Your task to perform on an android device: Open Google Maps Image 0: 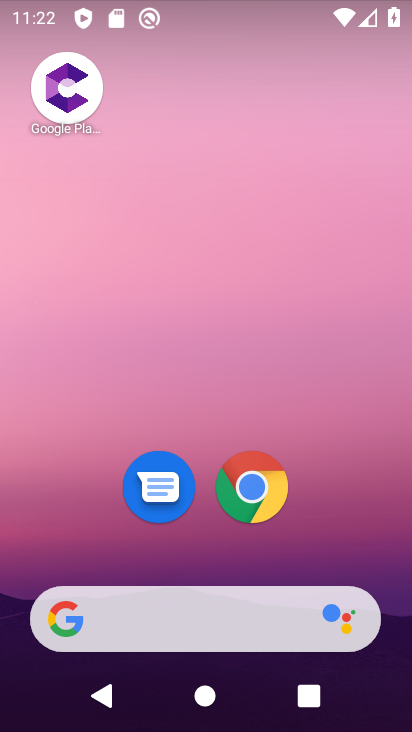
Step 0: drag from (358, 556) to (207, 63)
Your task to perform on an android device: Open Google Maps Image 1: 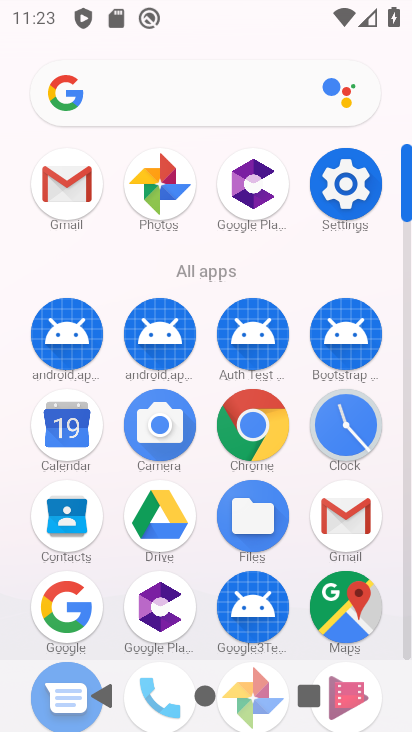
Step 1: click (351, 617)
Your task to perform on an android device: Open Google Maps Image 2: 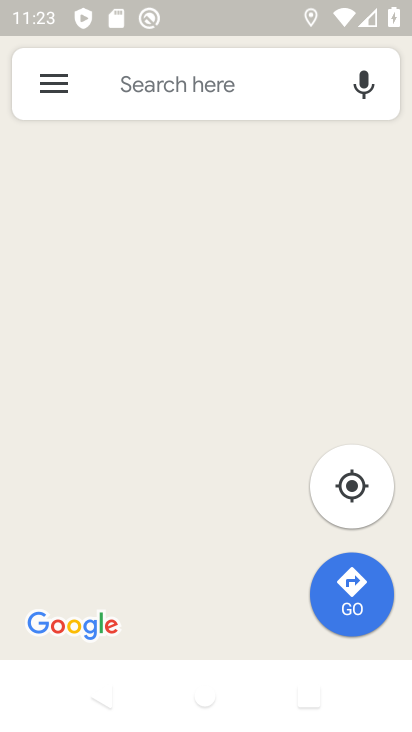
Step 2: task complete